Your task to perform on an android device: What's on my calendar today? Image 0: 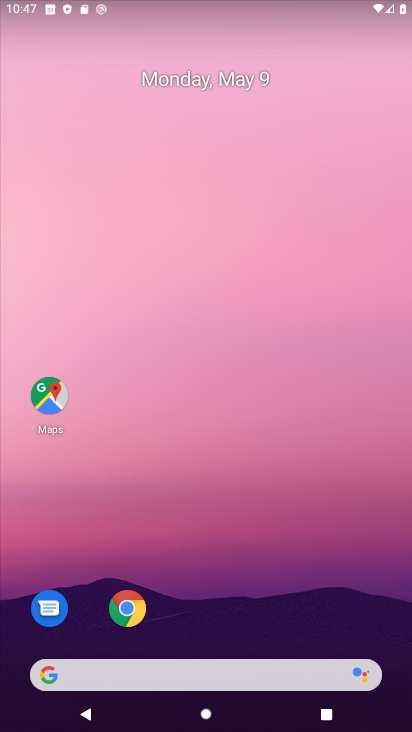
Step 0: drag from (187, 654) to (392, 31)
Your task to perform on an android device: What's on my calendar today? Image 1: 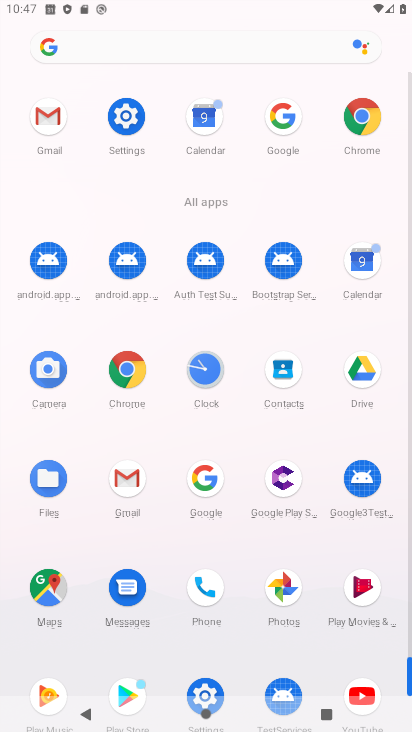
Step 1: click (366, 257)
Your task to perform on an android device: What's on my calendar today? Image 2: 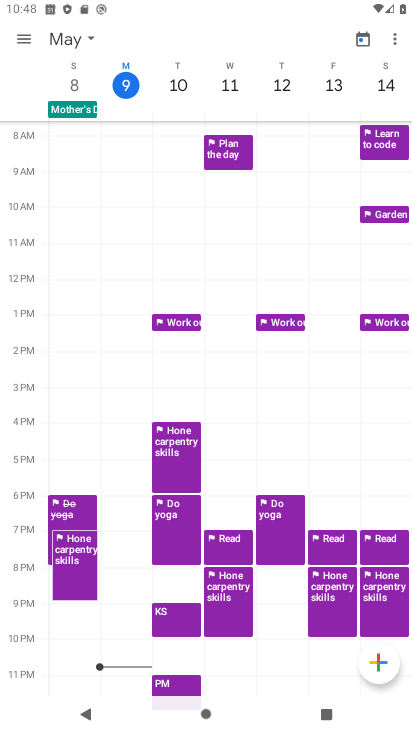
Step 2: task complete